Your task to perform on an android device: Search for seafood restaurants on Google Maps Image 0: 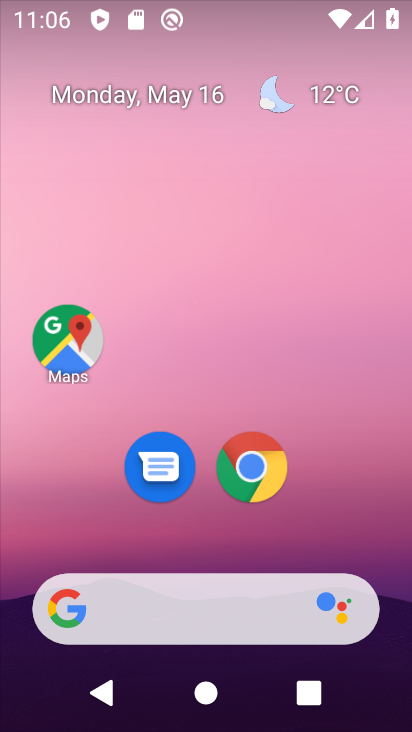
Step 0: drag from (200, 524) to (202, 58)
Your task to perform on an android device: Search for seafood restaurants on Google Maps Image 1: 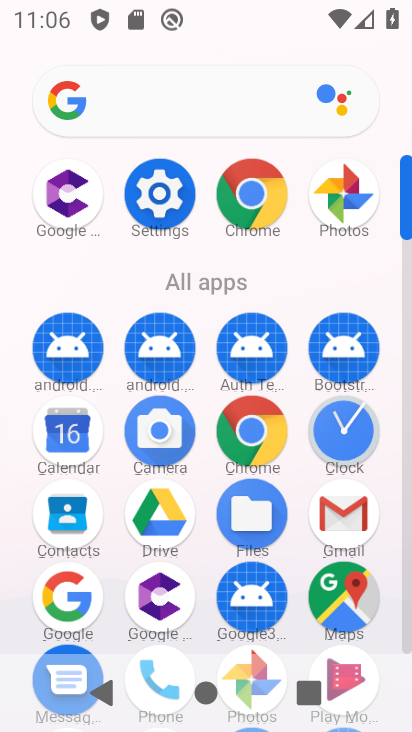
Step 1: click (331, 589)
Your task to perform on an android device: Search for seafood restaurants on Google Maps Image 2: 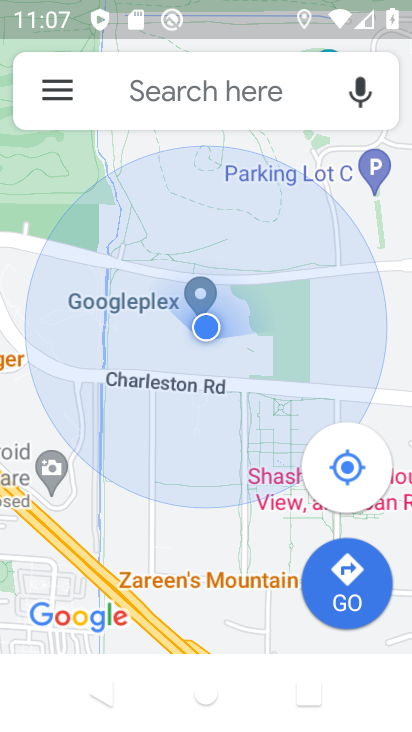
Step 2: click (140, 94)
Your task to perform on an android device: Search for seafood restaurants on Google Maps Image 3: 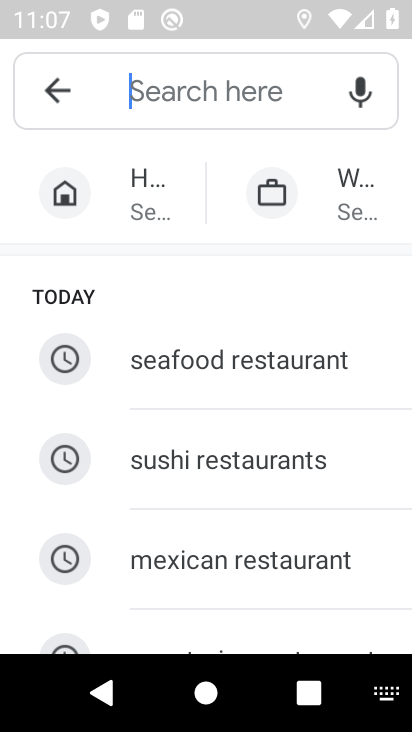
Step 3: type "seafood restaurants"
Your task to perform on an android device: Search for seafood restaurants on Google Maps Image 4: 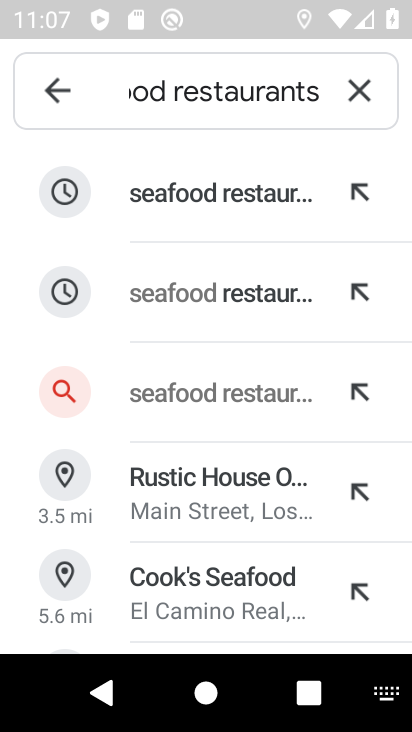
Step 4: click (202, 206)
Your task to perform on an android device: Search for seafood restaurants on Google Maps Image 5: 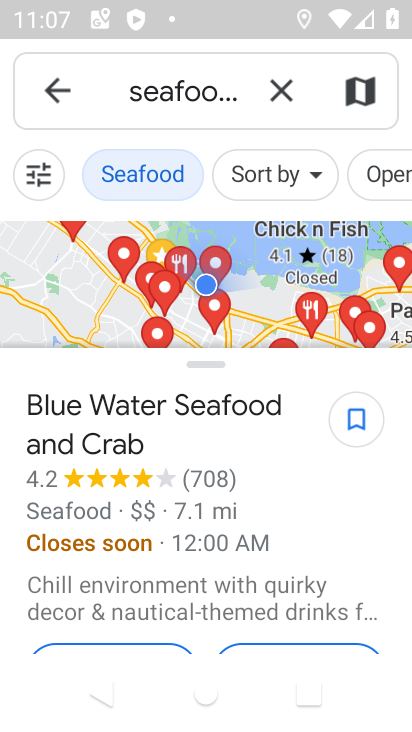
Step 5: task complete